Your task to perform on an android device: Go to privacy settings Image 0: 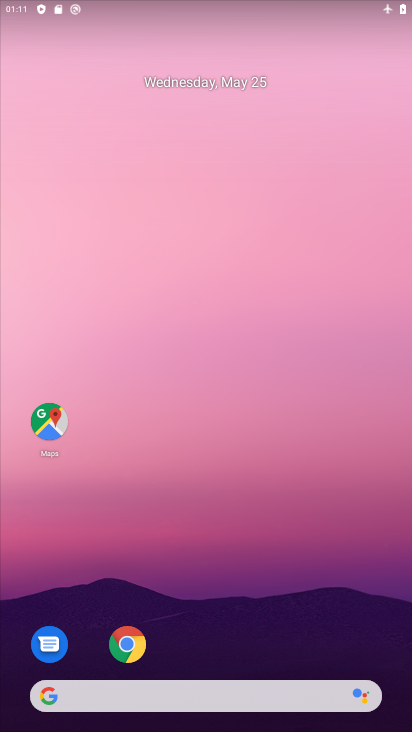
Step 0: drag from (271, 532) to (185, 199)
Your task to perform on an android device: Go to privacy settings Image 1: 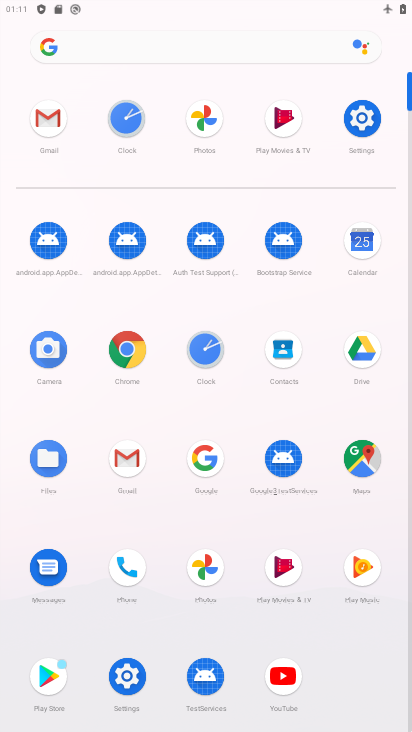
Step 1: click (355, 114)
Your task to perform on an android device: Go to privacy settings Image 2: 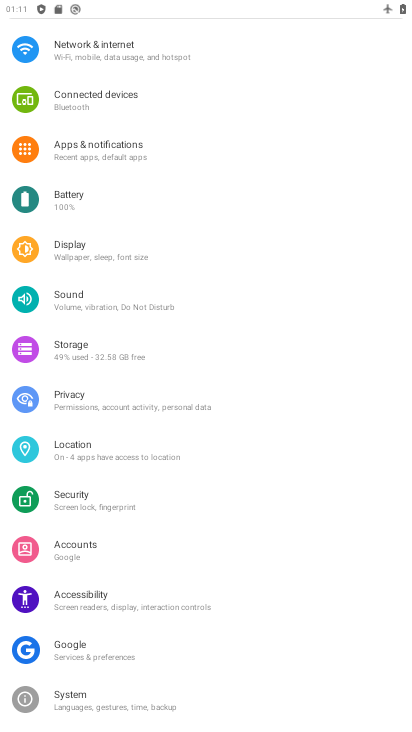
Step 2: click (70, 395)
Your task to perform on an android device: Go to privacy settings Image 3: 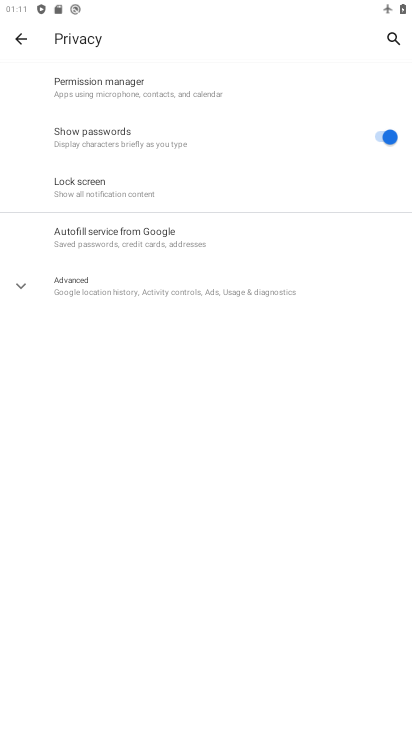
Step 3: task complete